Your task to perform on an android device: add a contact Image 0: 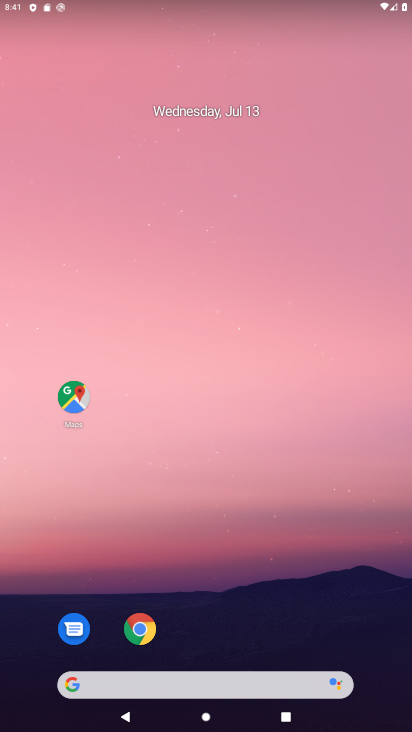
Step 0: drag from (279, 557) to (294, 101)
Your task to perform on an android device: add a contact Image 1: 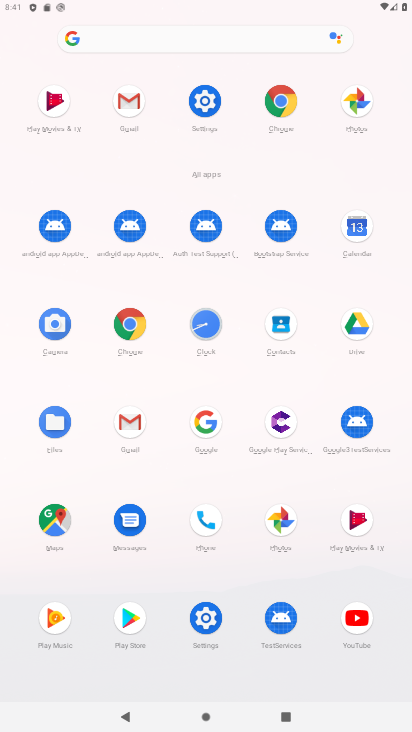
Step 1: click (278, 312)
Your task to perform on an android device: add a contact Image 2: 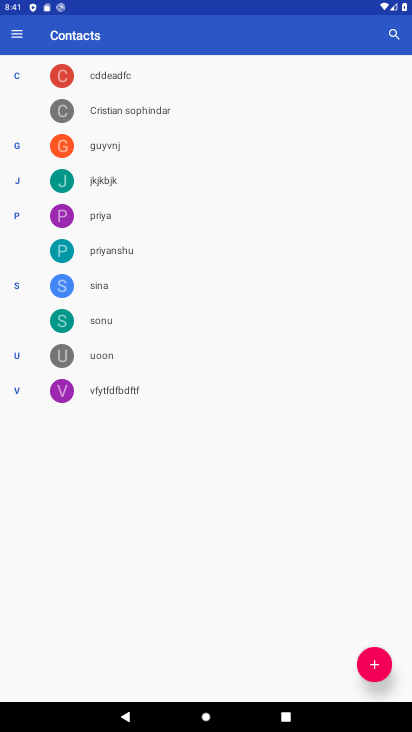
Step 2: click (390, 652)
Your task to perform on an android device: add a contact Image 3: 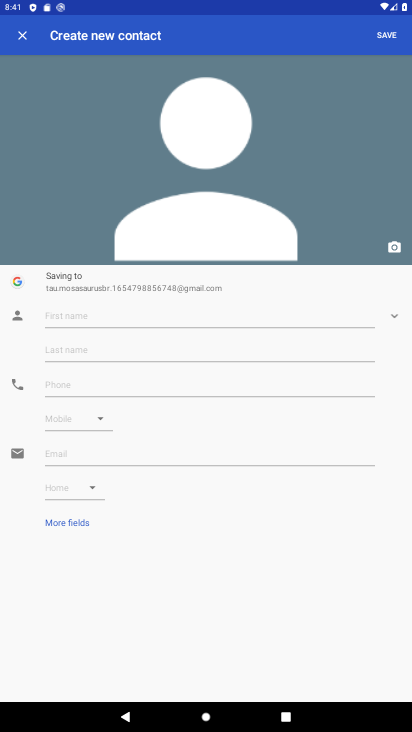
Step 3: click (60, 312)
Your task to perform on an android device: add a contact Image 4: 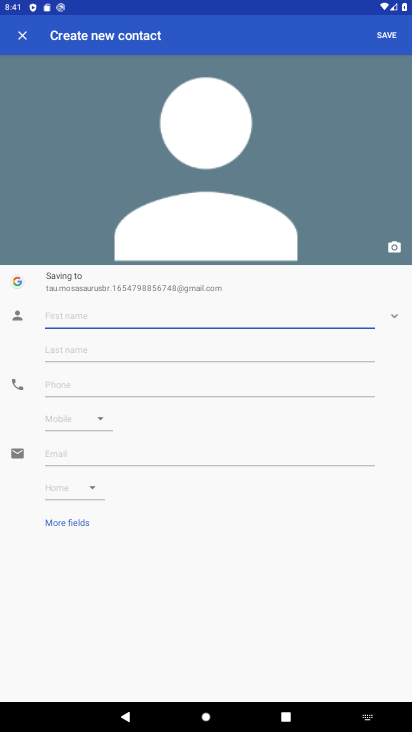
Step 4: type "vvrt"
Your task to perform on an android device: add a contact Image 5: 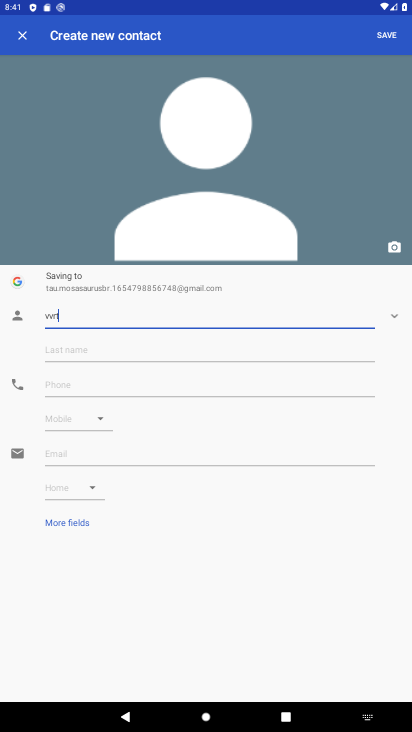
Step 5: click (46, 382)
Your task to perform on an android device: add a contact Image 6: 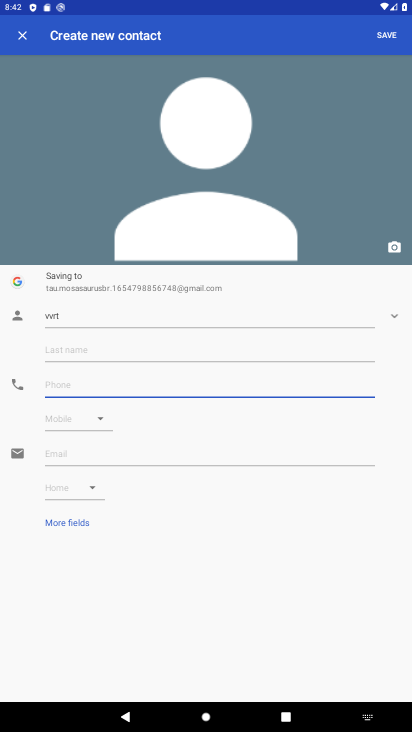
Step 6: type "5940"
Your task to perform on an android device: add a contact Image 7: 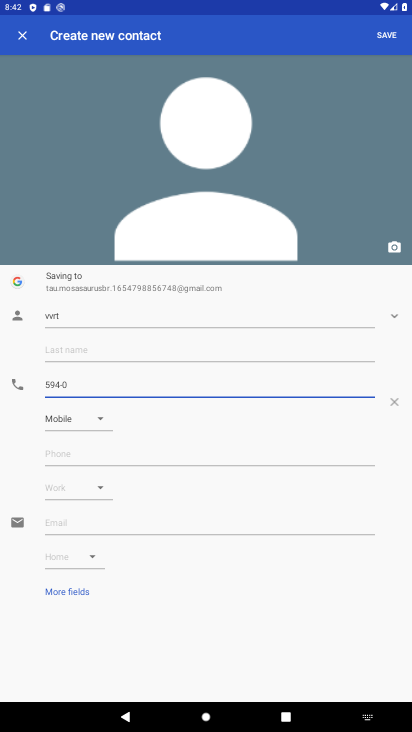
Step 7: click (387, 32)
Your task to perform on an android device: add a contact Image 8: 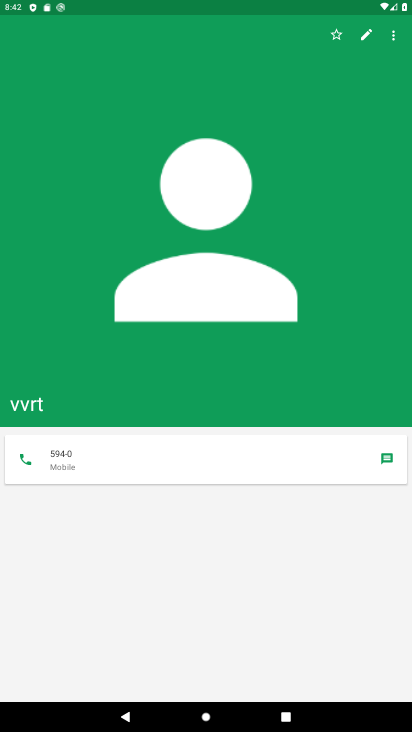
Step 8: task complete